Your task to perform on an android device: Go to Maps Image 0: 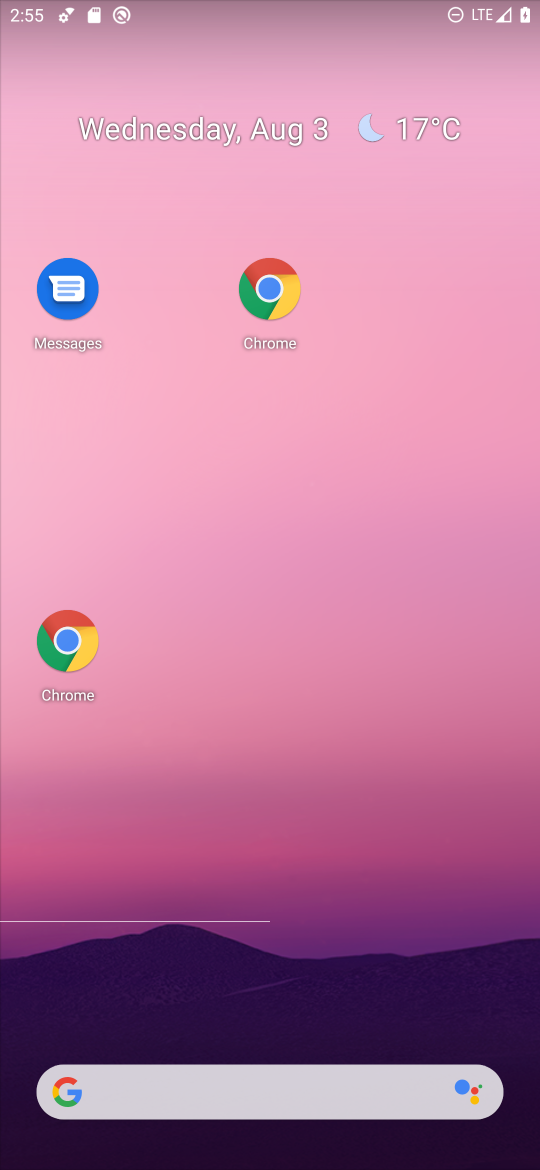
Step 0: drag from (373, 1000) to (335, 165)
Your task to perform on an android device: Go to Maps Image 1: 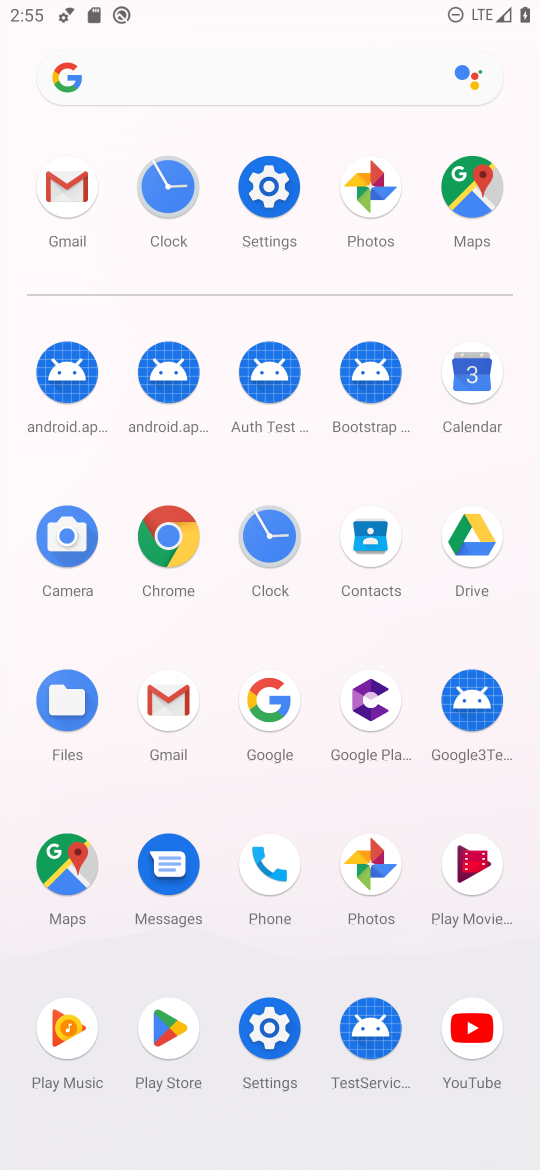
Step 1: click (55, 902)
Your task to perform on an android device: Go to Maps Image 2: 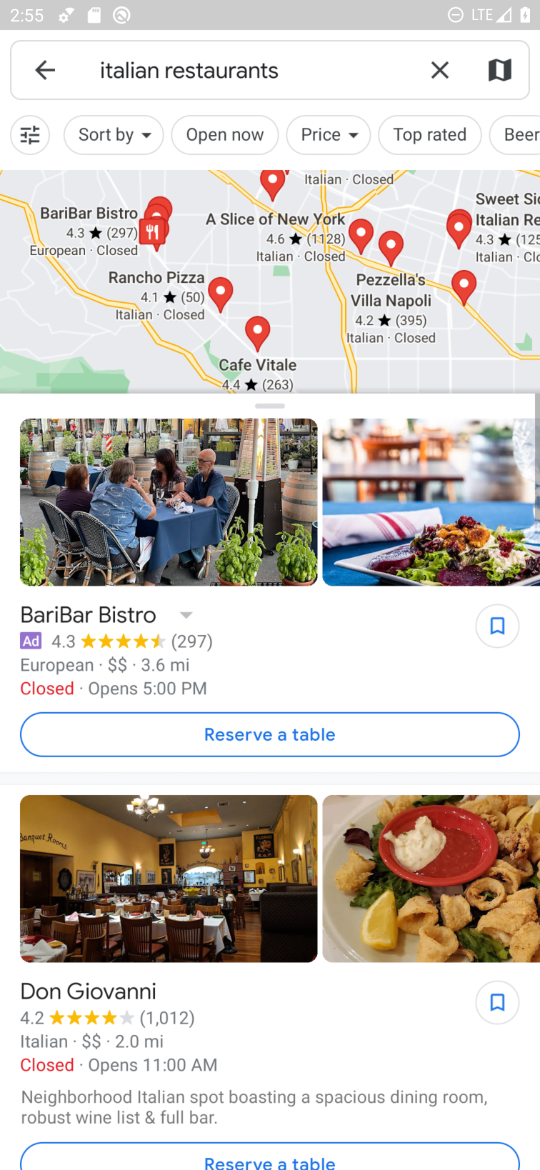
Step 2: task complete